Your task to perform on an android device: Go to location settings Image 0: 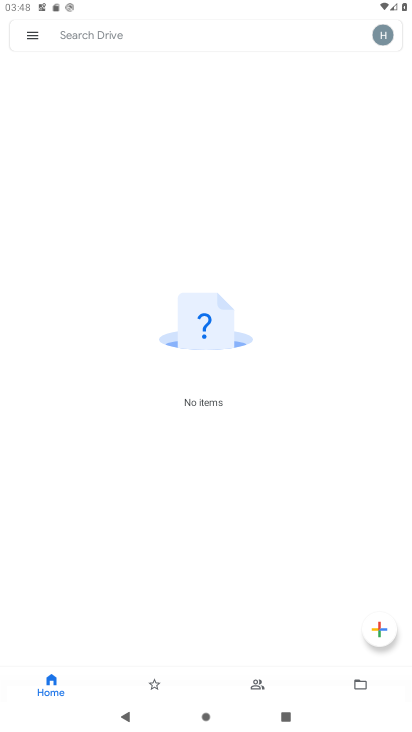
Step 0: press home button
Your task to perform on an android device: Go to location settings Image 1: 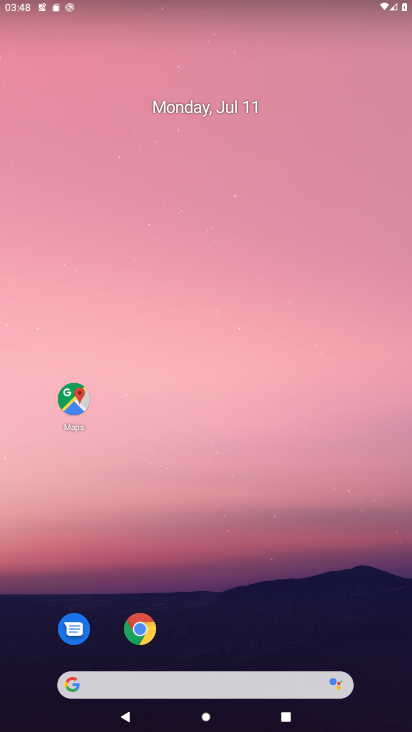
Step 1: drag from (193, 637) to (263, 16)
Your task to perform on an android device: Go to location settings Image 2: 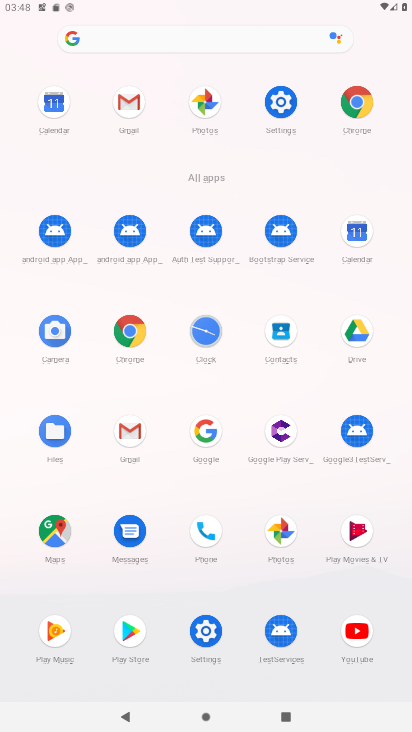
Step 2: click (276, 97)
Your task to perform on an android device: Go to location settings Image 3: 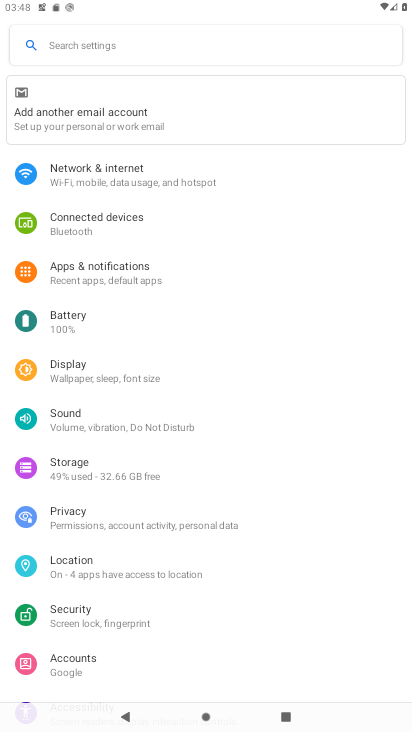
Step 3: click (70, 560)
Your task to perform on an android device: Go to location settings Image 4: 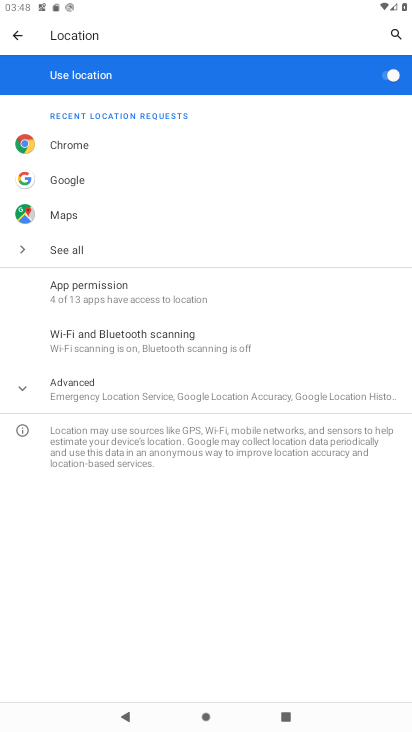
Step 4: click (146, 392)
Your task to perform on an android device: Go to location settings Image 5: 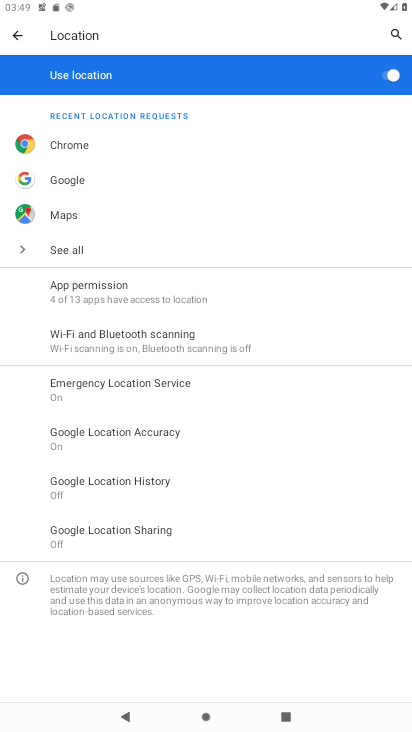
Step 5: task complete